Your task to perform on an android device: toggle show notifications on the lock screen Image 0: 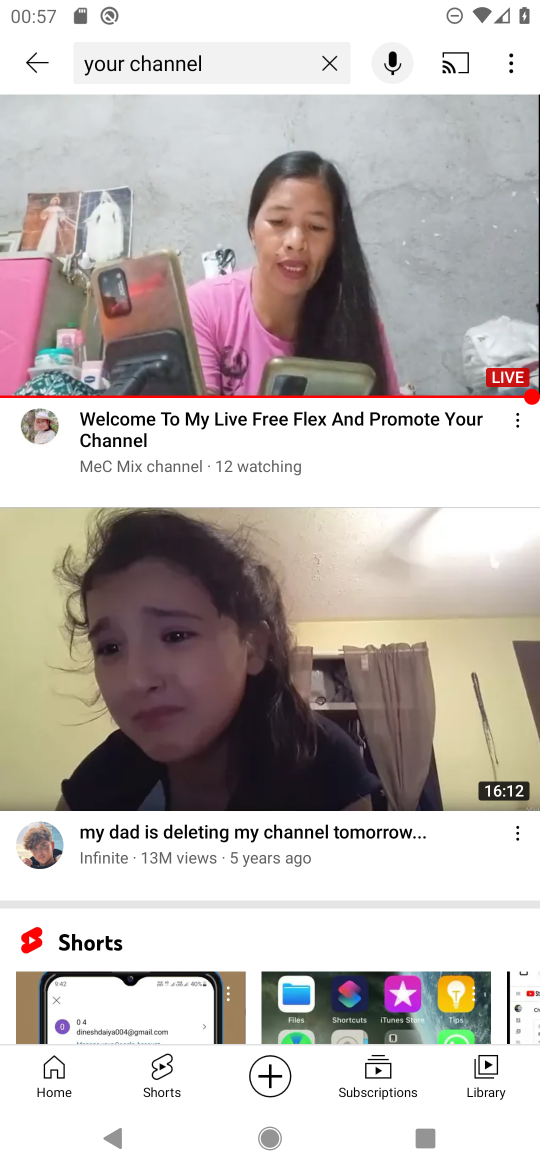
Step 0: press home button
Your task to perform on an android device: toggle show notifications on the lock screen Image 1: 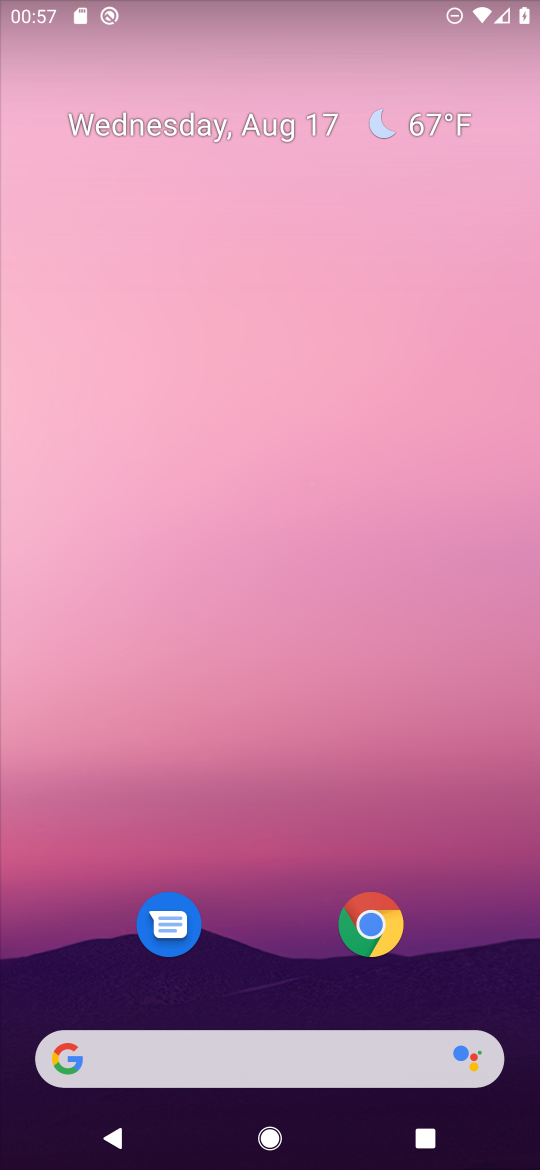
Step 1: click (263, 409)
Your task to perform on an android device: toggle show notifications on the lock screen Image 2: 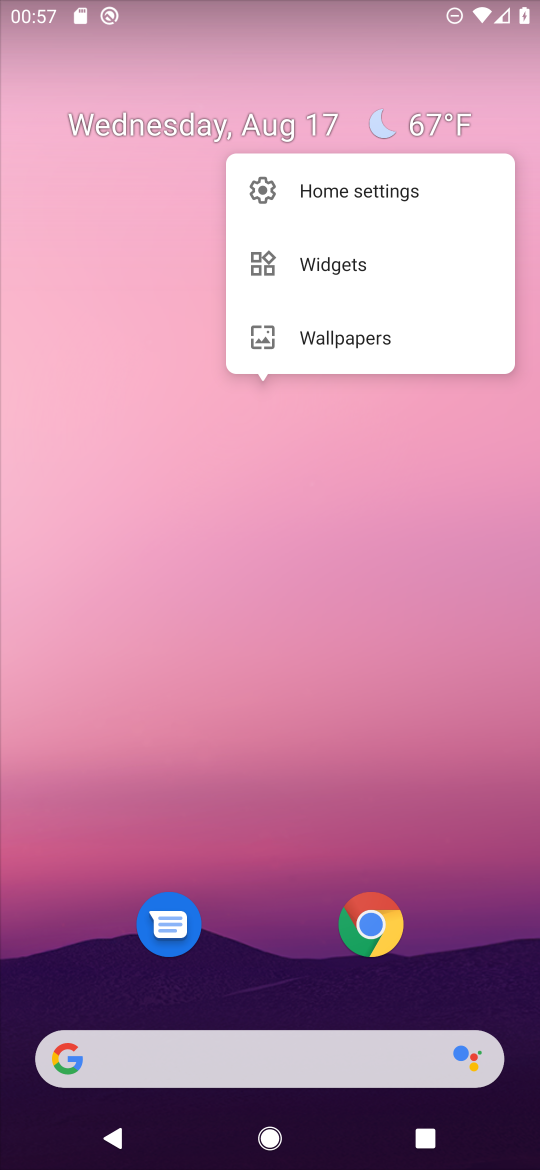
Step 2: drag from (253, 973) to (243, 38)
Your task to perform on an android device: toggle show notifications on the lock screen Image 3: 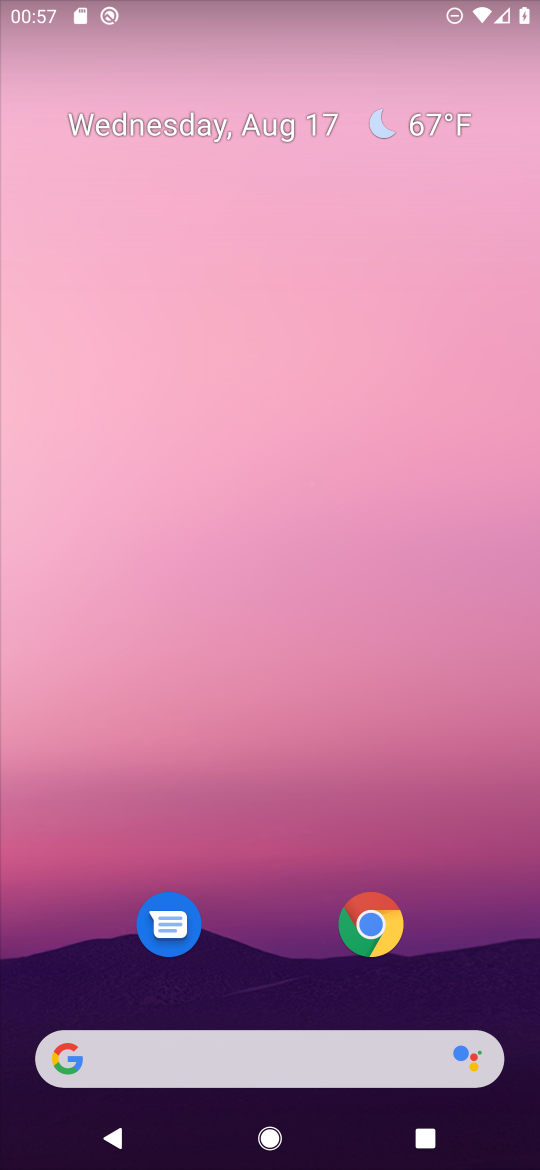
Step 3: drag from (236, 986) to (312, 94)
Your task to perform on an android device: toggle show notifications on the lock screen Image 4: 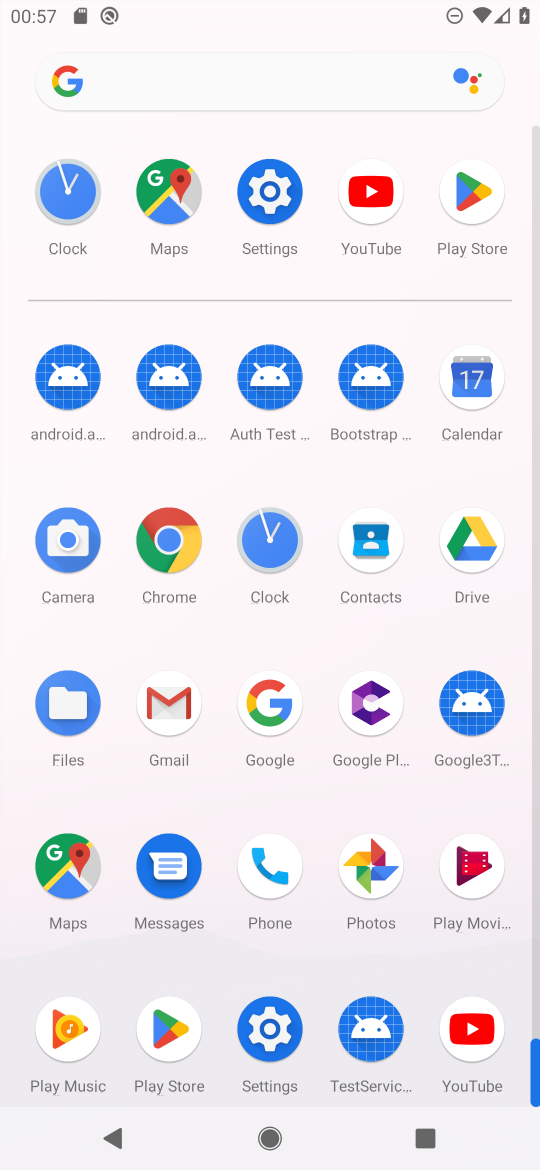
Step 4: click (268, 169)
Your task to perform on an android device: toggle show notifications on the lock screen Image 5: 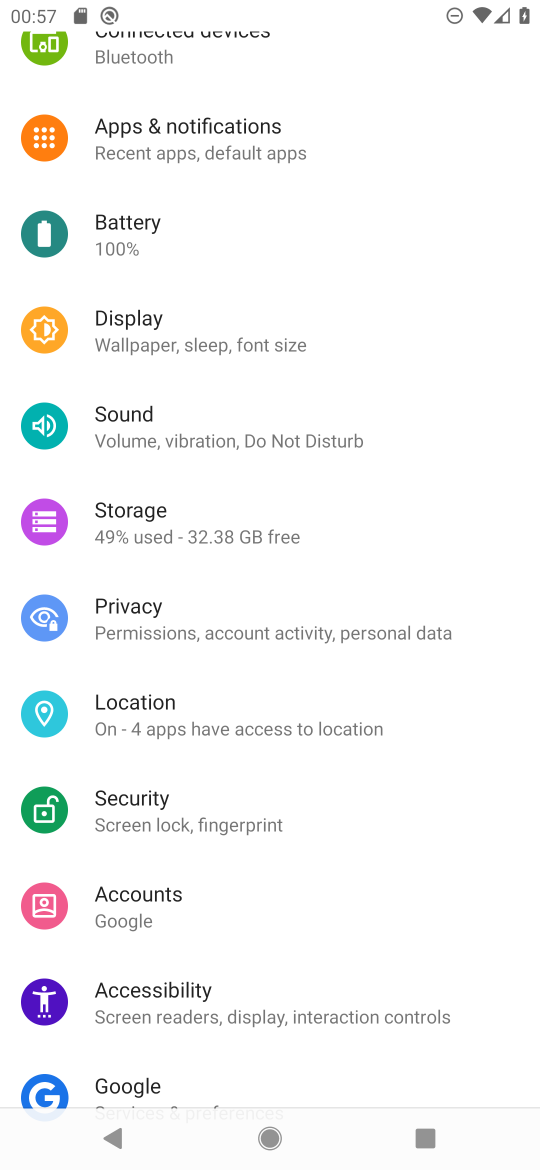
Step 5: click (227, 155)
Your task to perform on an android device: toggle show notifications on the lock screen Image 6: 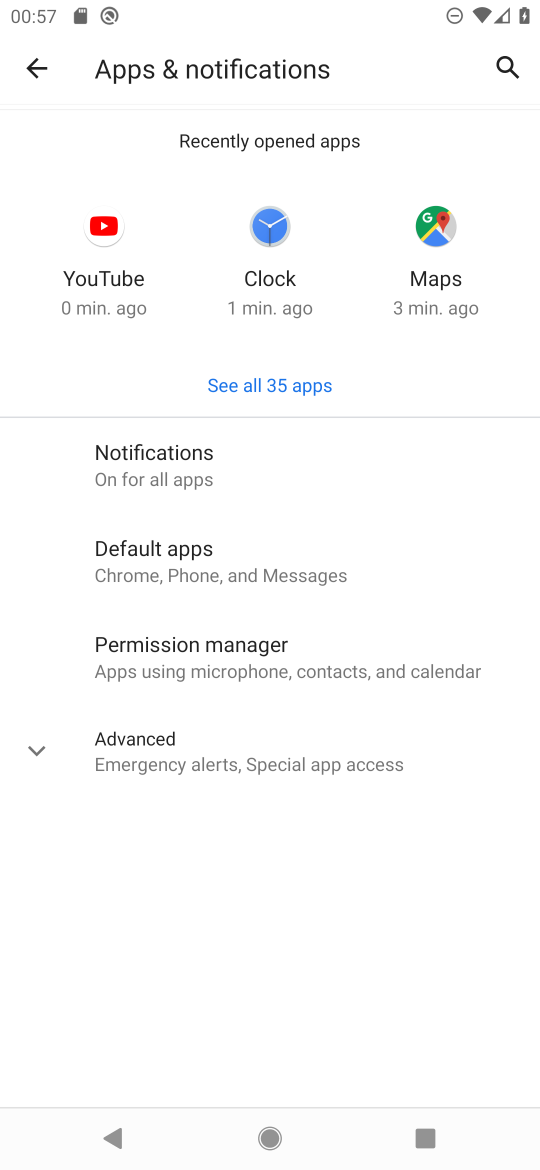
Step 6: click (135, 460)
Your task to perform on an android device: toggle show notifications on the lock screen Image 7: 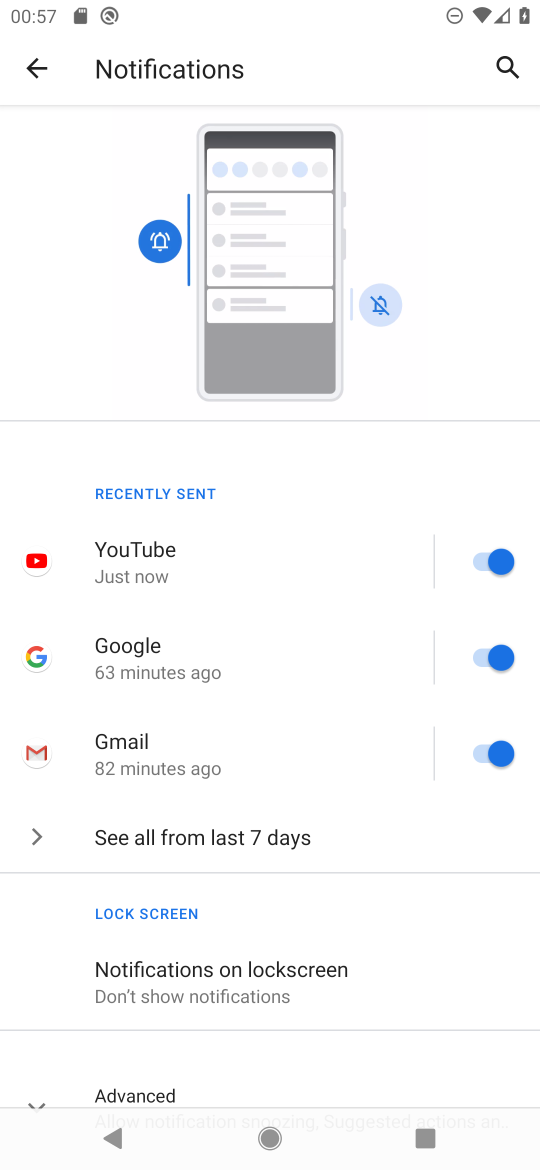
Step 7: click (244, 995)
Your task to perform on an android device: toggle show notifications on the lock screen Image 8: 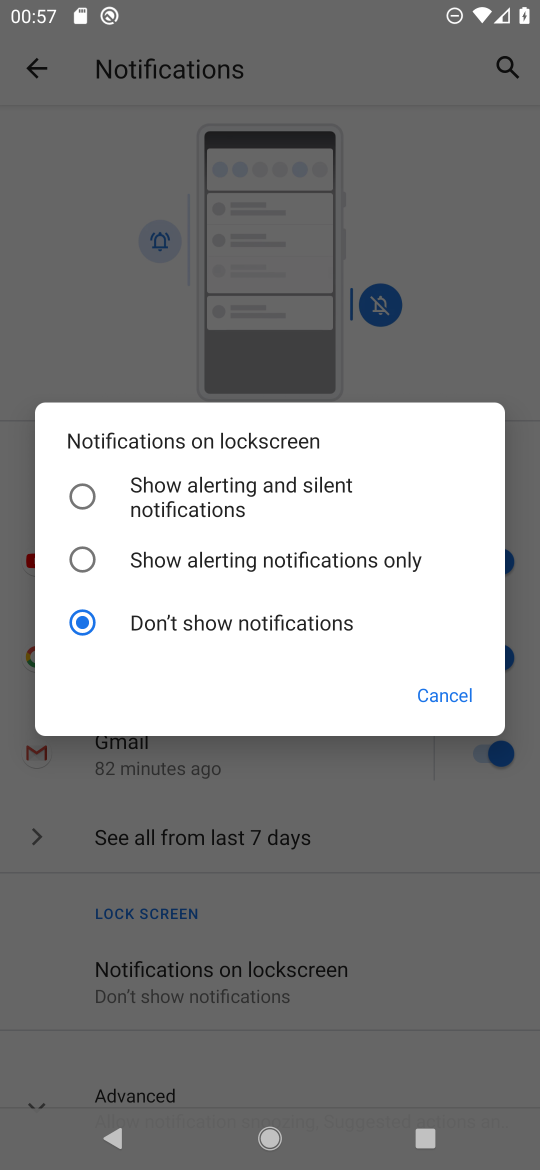
Step 8: click (242, 488)
Your task to perform on an android device: toggle show notifications on the lock screen Image 9: 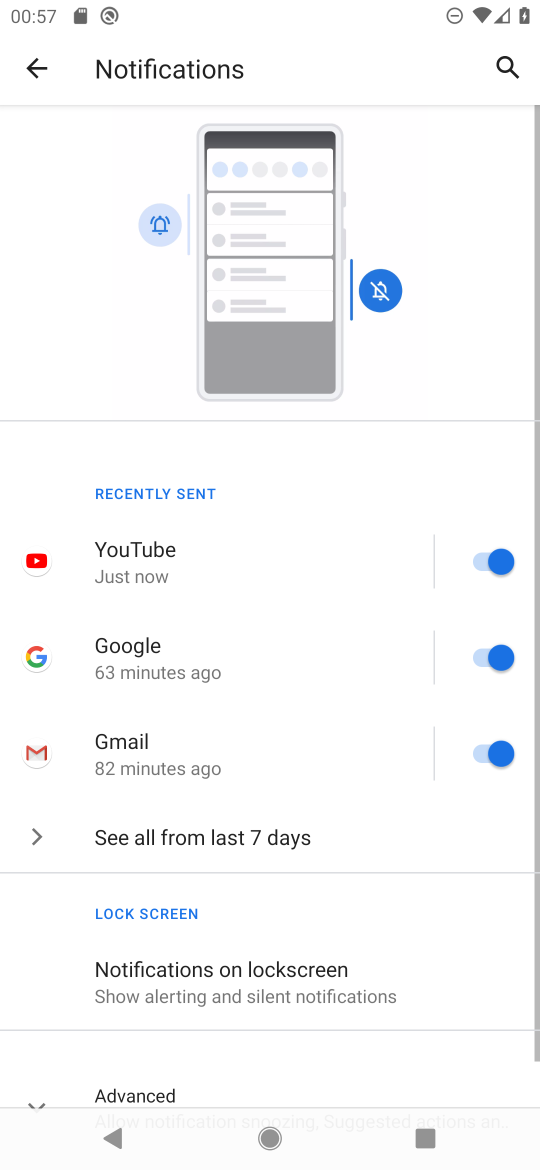
Step 9: task complete